Your task to perform on an android device: toggle location history Image 0: 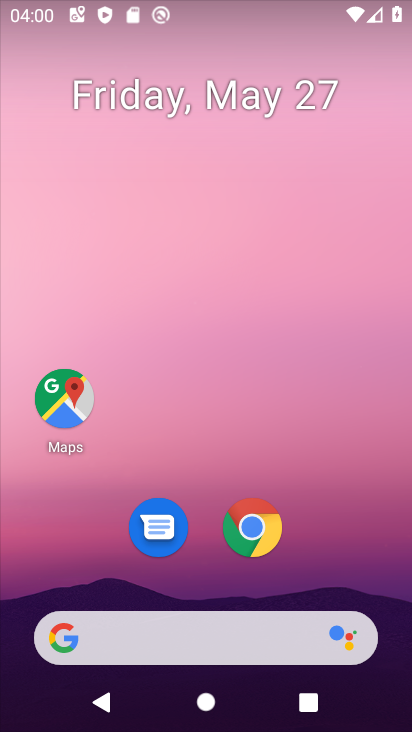
Step 0: drag from (376, 563) to (278, 7)
Your task to perform on an android device: toggle location history Image 1: 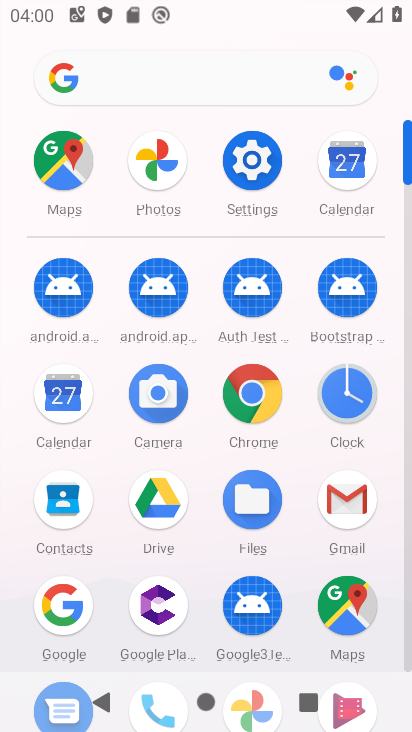
Step 1: click (43, 185)
Your task to perform on an android device: toggle location history Image 2: 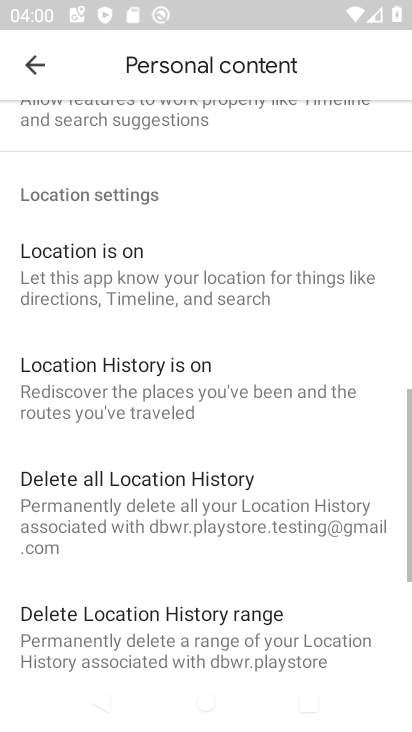
Step 2: click (130, 377)
Your task to perform on an android device: toggle location history Image 3: 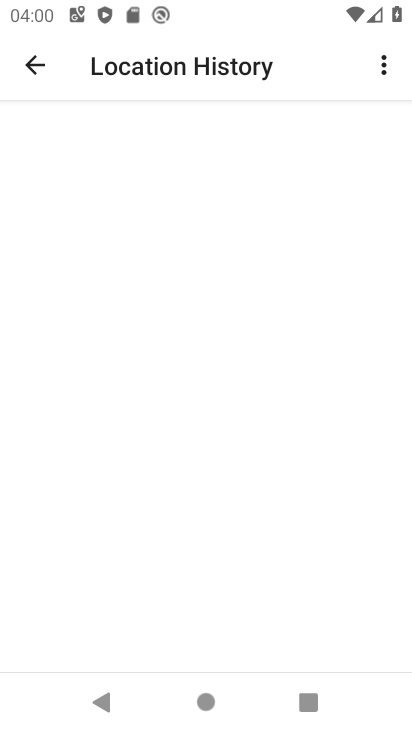
Step 3: drag from (325, 588) to (289, 375)
Your task to perform on an android device: toggle location history Image 4: 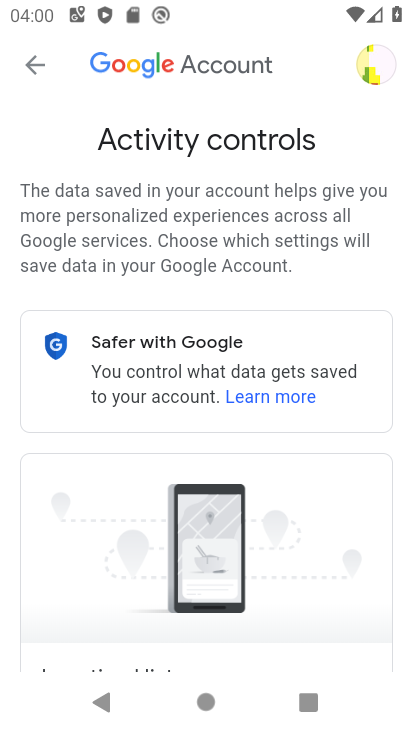
Step 4: drag from (362, 596) to (235, 52)
Your task to perform on an android device: toggle location history Image 5: 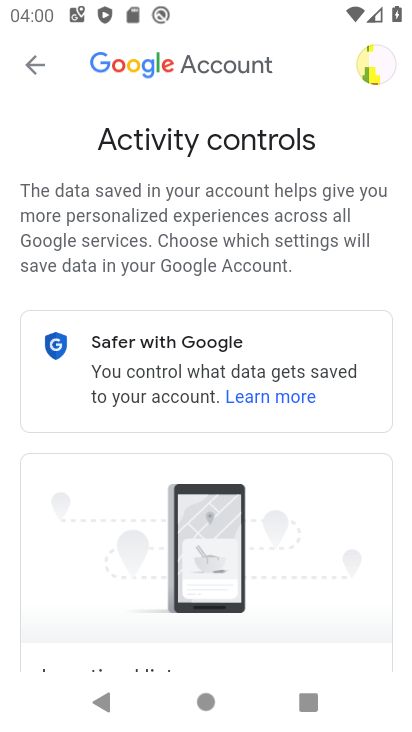
Step 5: drag from (307, 532) to (252, 38)
Your task to perform on an android device: toggle location history Image 6: 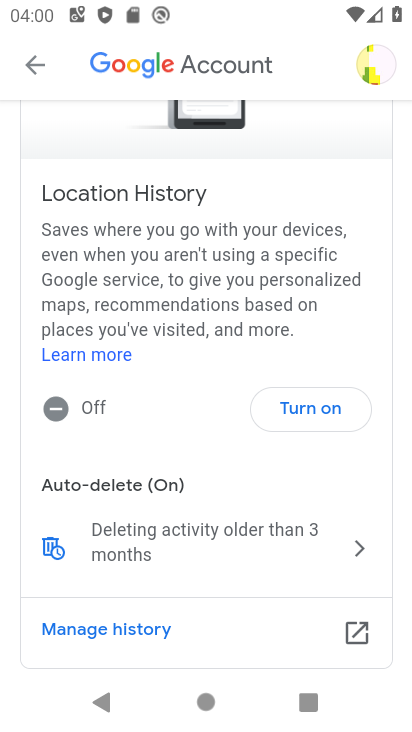
Step 6: click (283, 415)
Your task to perform on an android device: toggle location history Image 7: 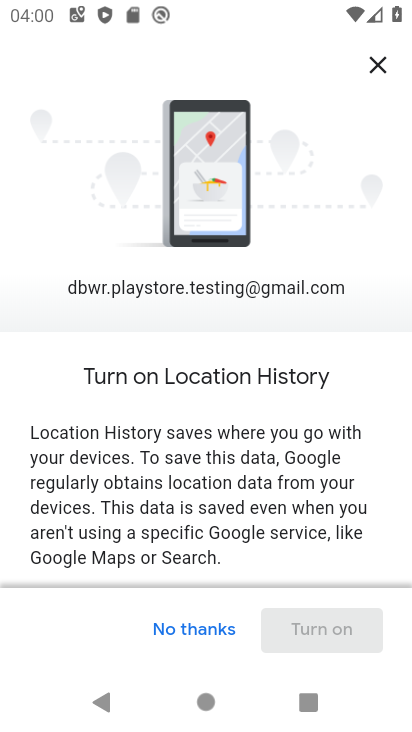
Step 7: drag from (309, 579) to (299, 45)
Your task to perform on an android device: toggle location history Image 8: 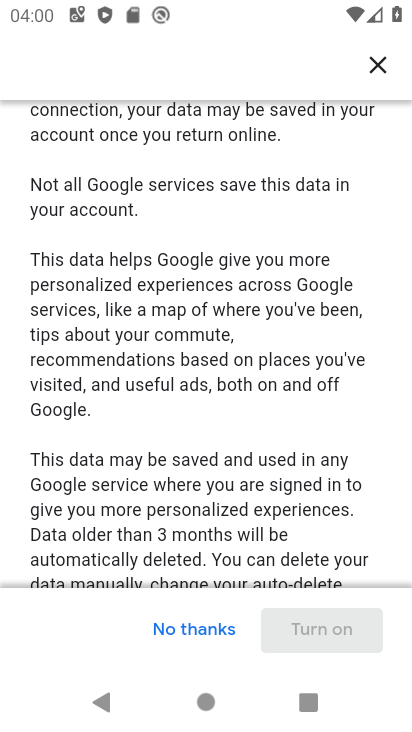
Step 8: drag from (297, 363) to (296, 8)
Your task to perform on an android device: toggle location history Image 9: 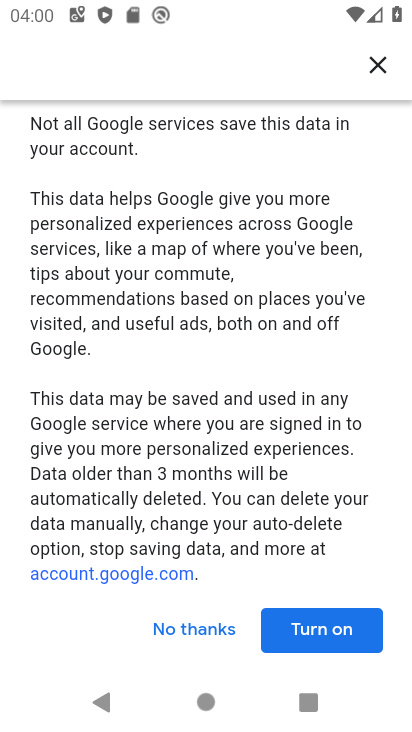
Step 9: drag from (294, 391) to (291, 90)
Your task to perform on an android device: toggle location history Image 10: 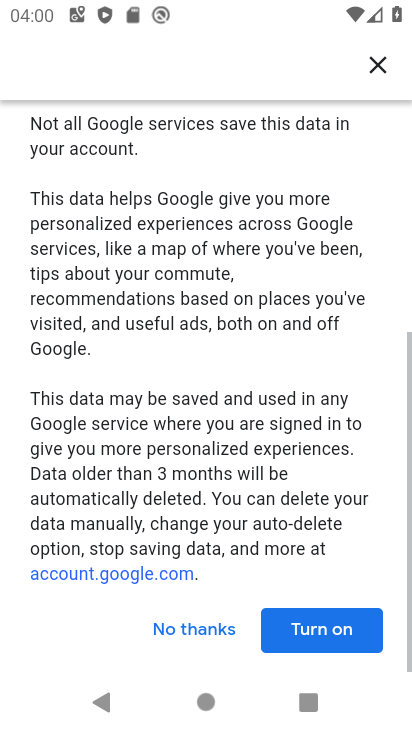
Step 10: click (297, 622)
Your task to perform on an android device: toggle location history Image 11: 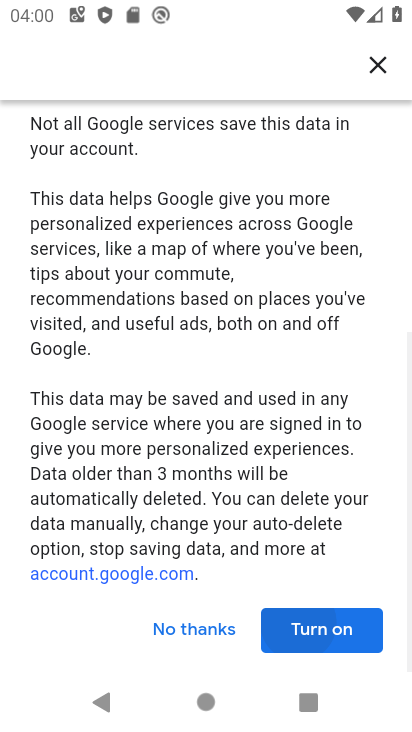
Step 11: click (297, 622)
Your task to perform on an android device: toggle location history Image 12: 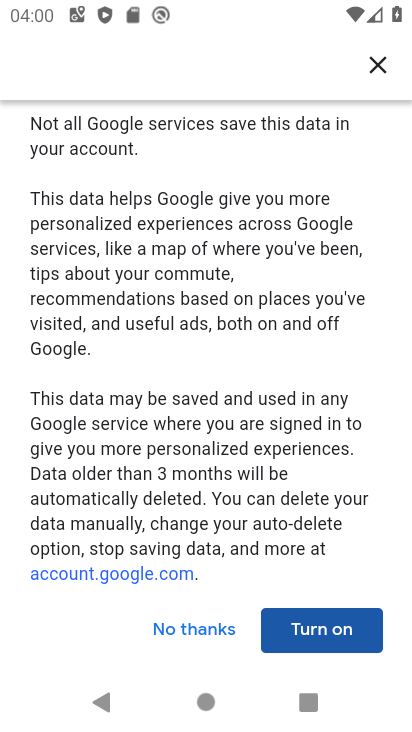
Step 12: click (297, 622)
Your task to perform on an android device: toggle location history Image 13: 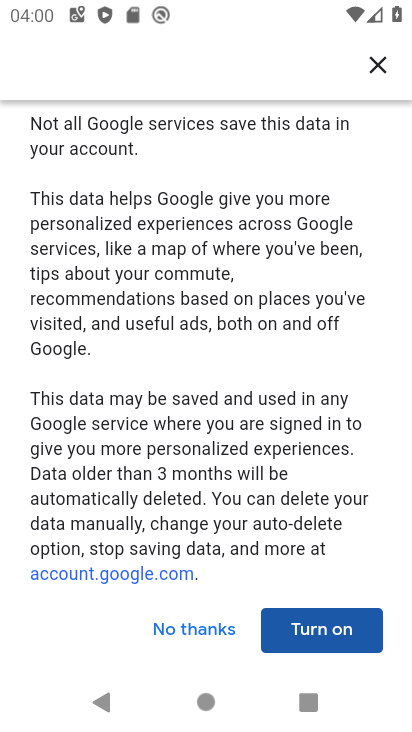
Step 13: click (297, 622)
Your task to perform on an android device: toggle location history Image 14: 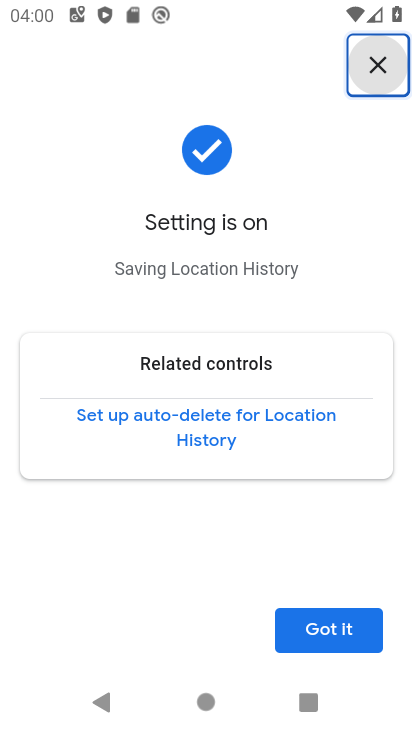
Step 14: click (355, 639)
Your task to perform on an android device: toggle location history Image 15: 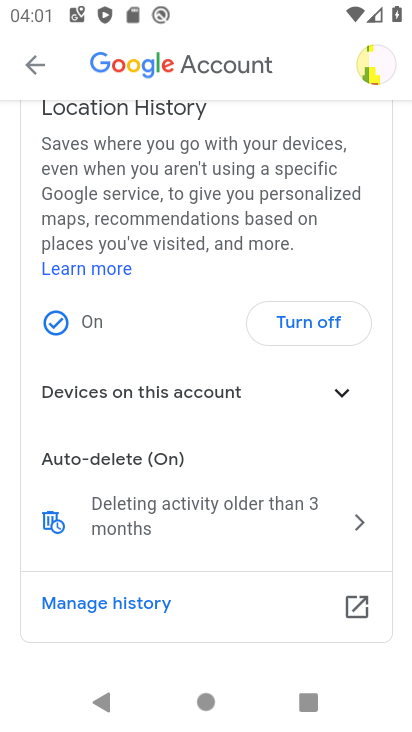
Step 15: task complete